Your task to perform on an android device: turn off improve location accuracy Image 0: 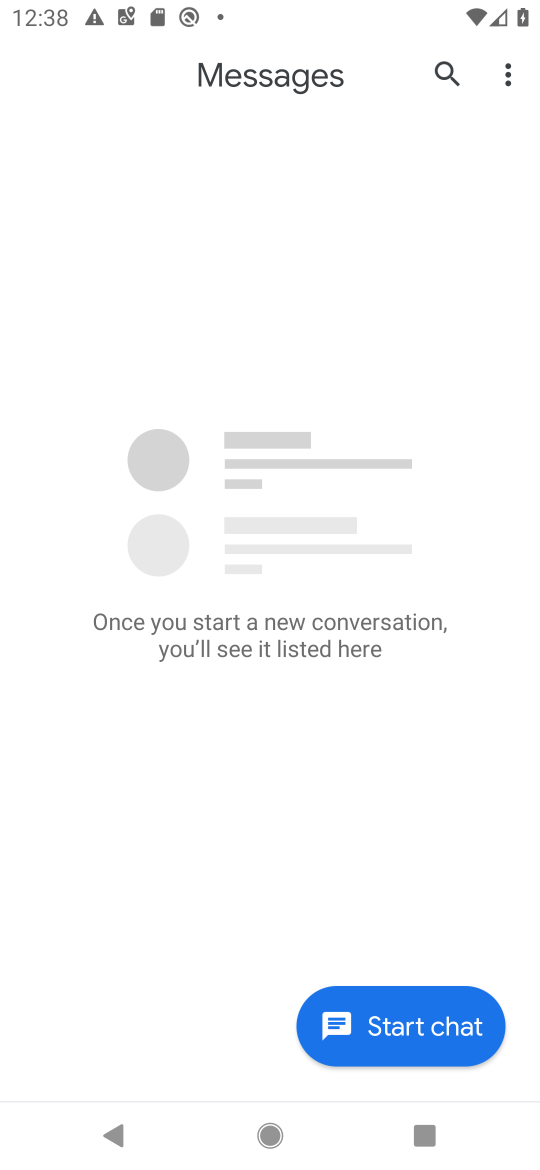
Step 0: press home button
Your task to perform on an android device: turn off improve location accuracy Image 1: 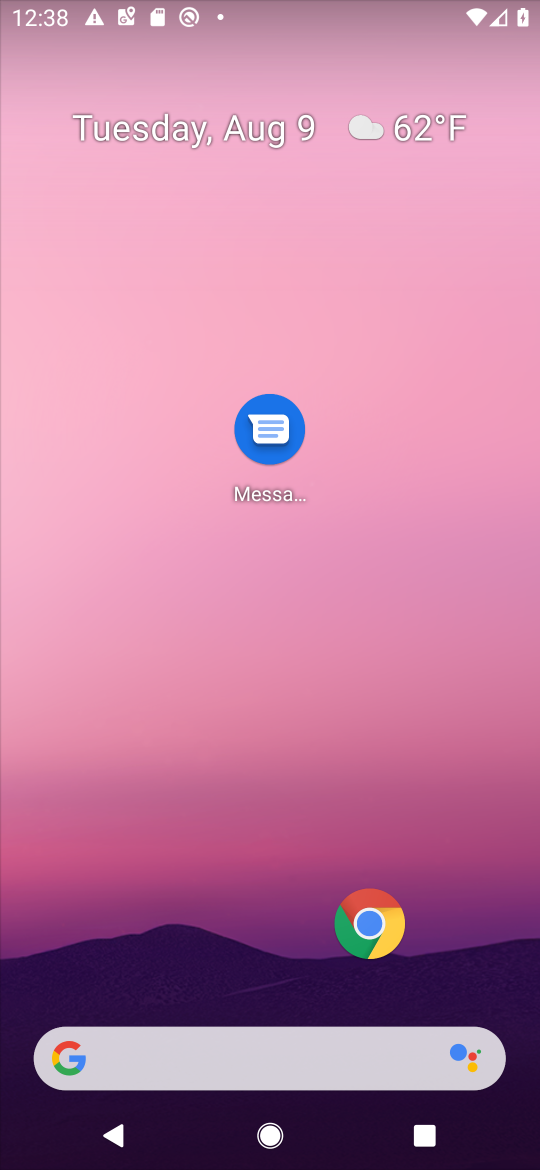
Step 1: drag from (22, 1146) to (222, 30)
Your task to perform on an android device: turn off improve location accuracy Image 2: 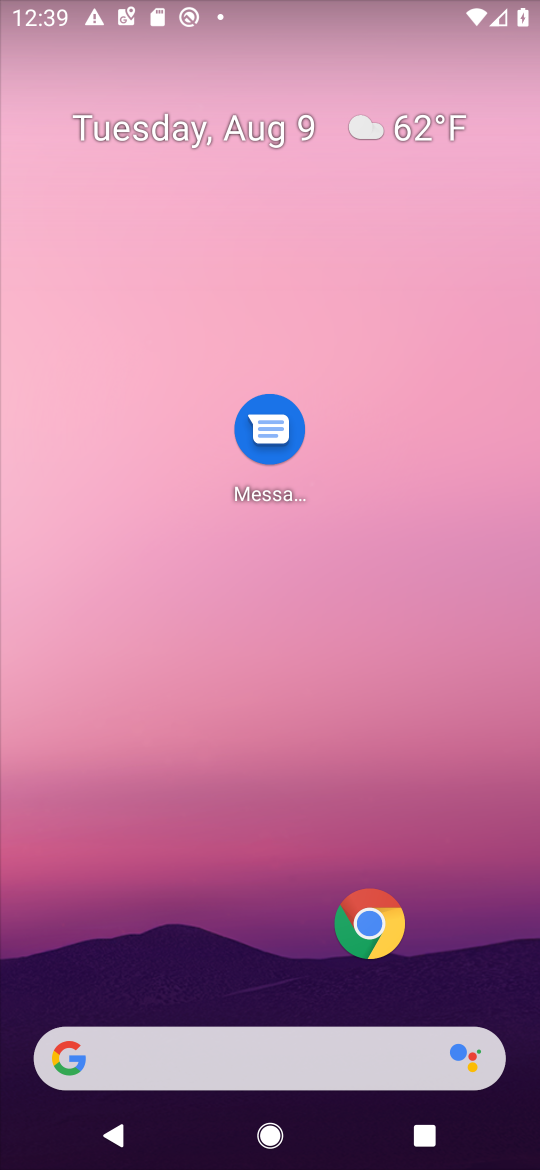
Step 2: drag from (43, 1120) to (311, 292)
Your task to perform on an android device: turn off improve location accuracy Image 3: 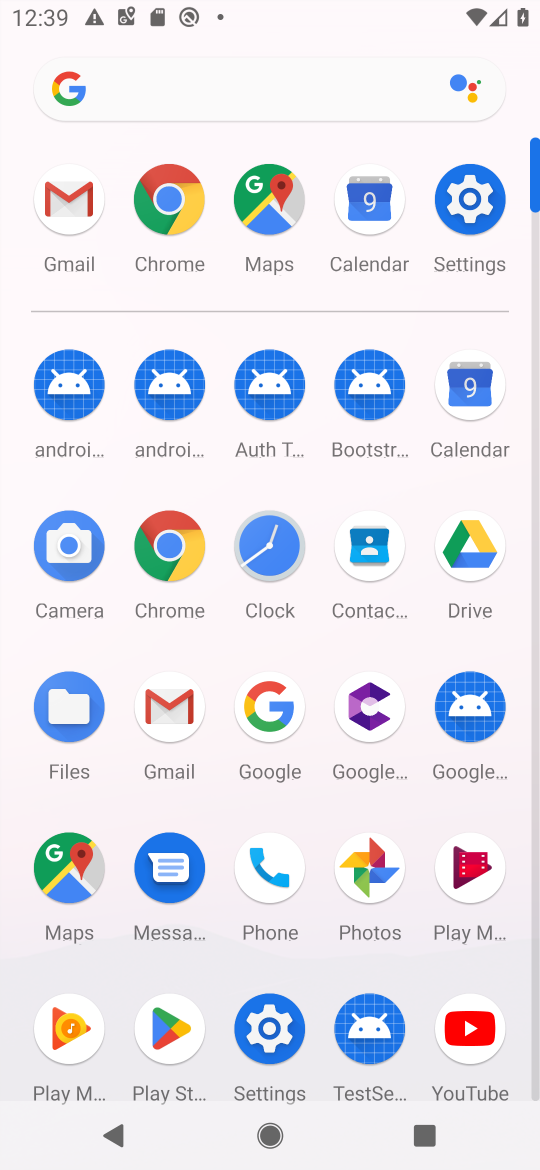
Step 3: click (261, 1012)
Your task to perform on an android device: turn off improve location accuracy Image 4: 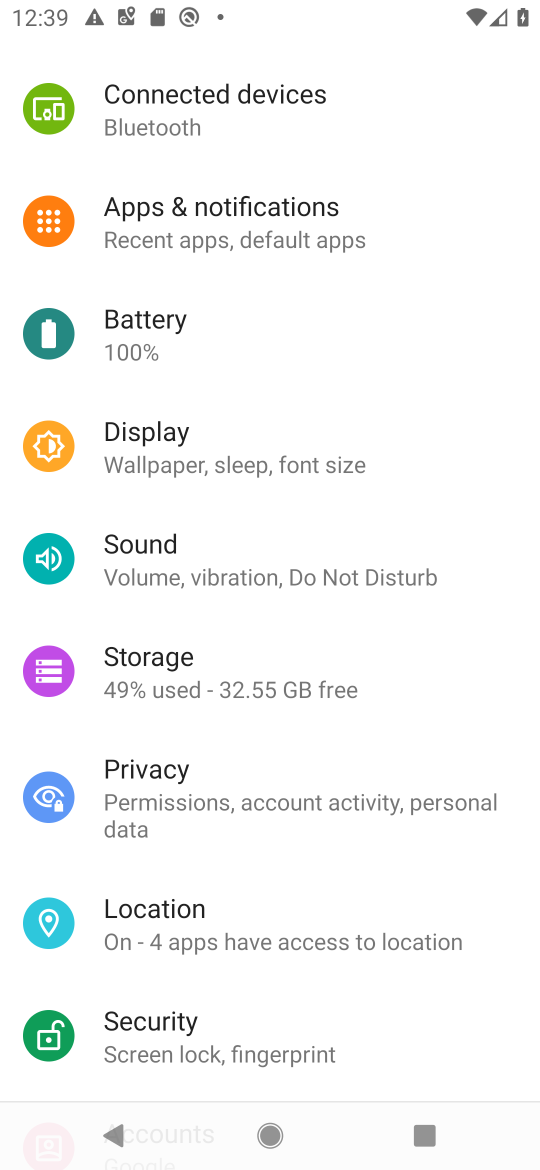
Step 4: click (178, 920)
Your task to perform on an android device: turn off improve location accuracy Image 5: 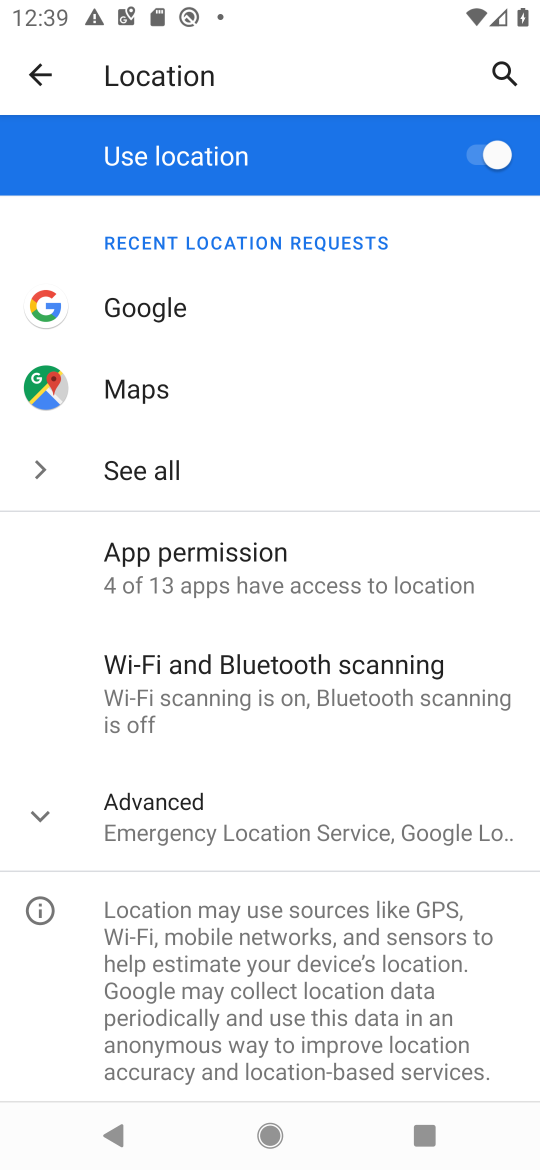
Step 5: click (198, 806)
Your task to perform on an android device: turn off improve location accuracy Image 6: 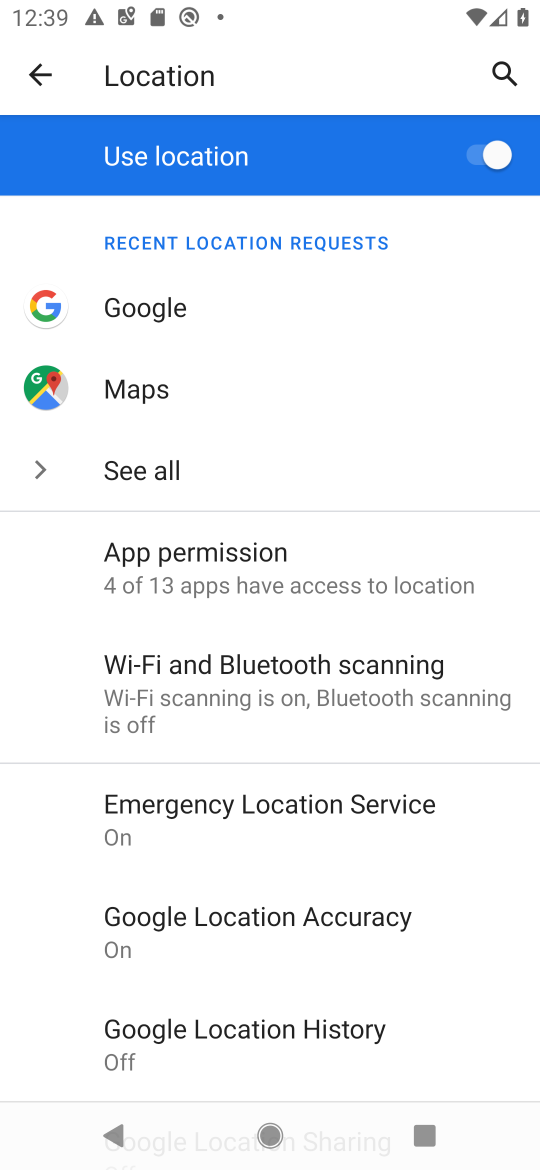
Step 6: click (234, 917)
Your task to perform on an android device: turn off improve location accuracy Image 7: 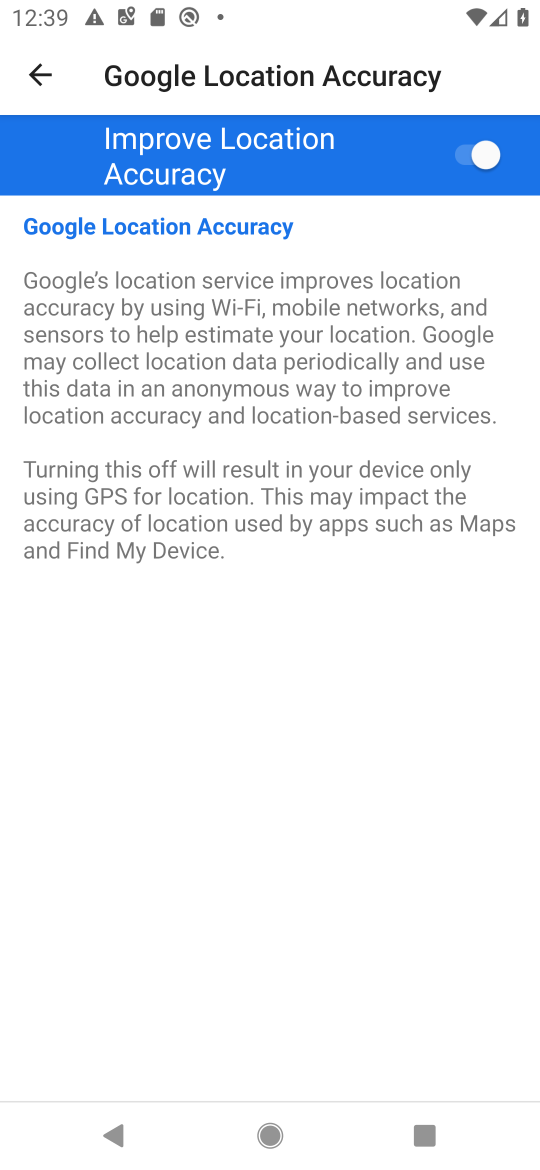
Step 7: click (482, 147)
Your task to perform on an android device: turn off improve location accuracy Image 8: 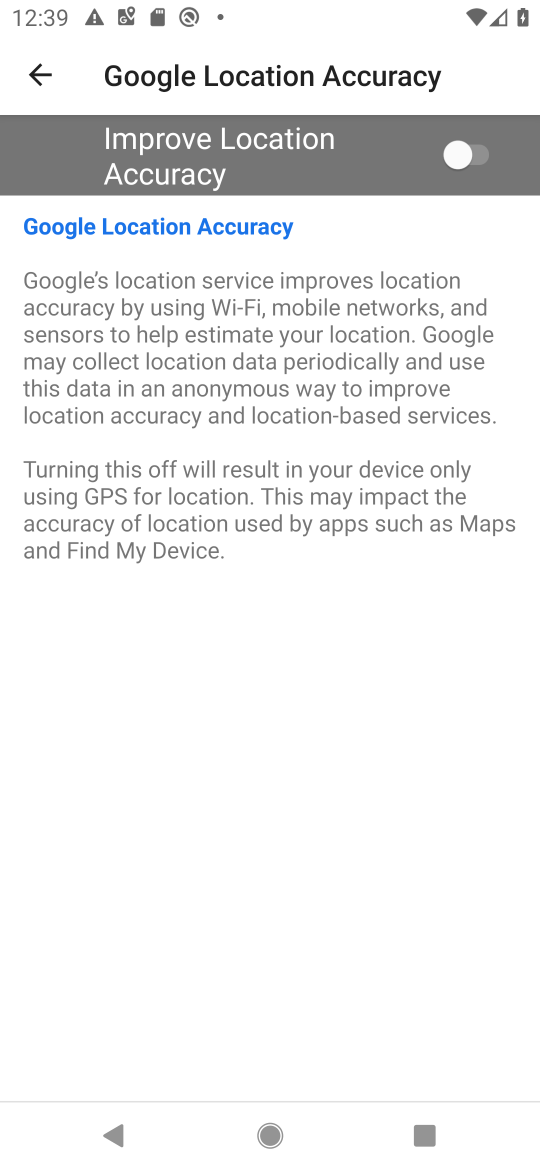
Step 8: task complete